Your task to perform on an android device: What's the weather going to be this weekend? Image 0: 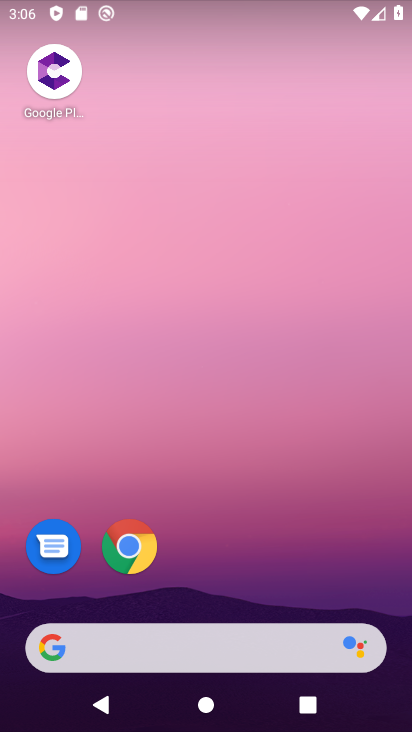
Step 0: click (230, 641)
Your task to perform on an android device: What's the weather going to be this weekend? Image 1: 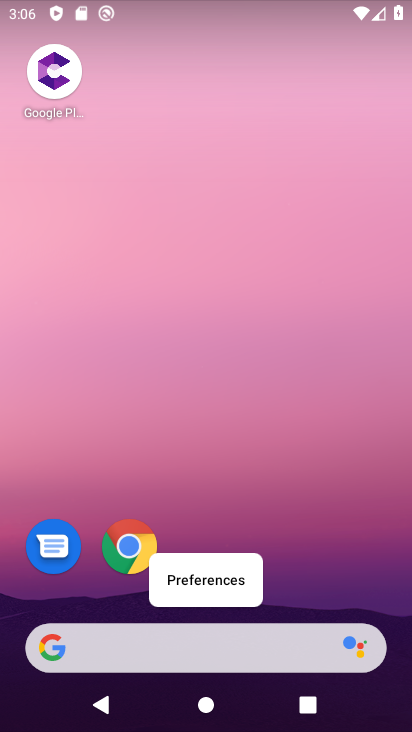
Step 1: click (170, 637)
Your task to perform on an android device: What's the weather going to be this weekend? Image 2: 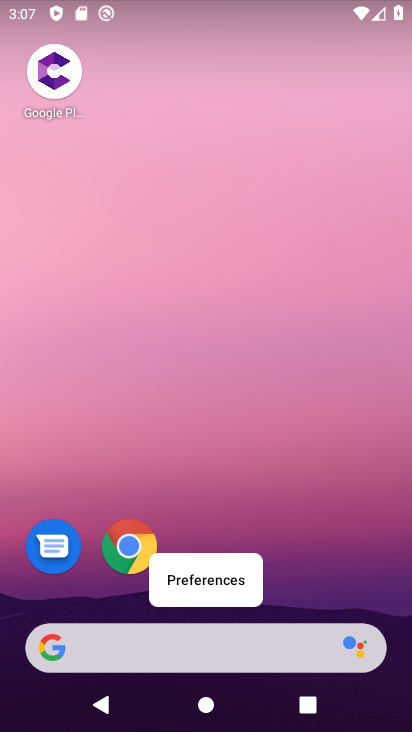
Step 2: click (166, 640)
Your task to perform on an android device: What's the weather going to be this weekend? Image 3: 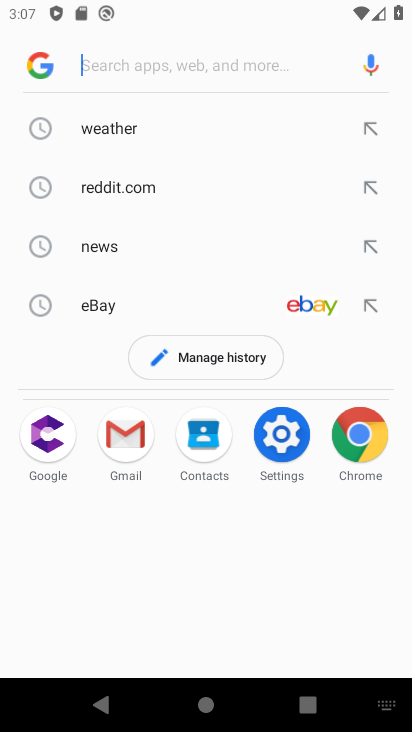
Step 3: click (139, 132)
Your task to perform on an android device: What's the weather going to be this weekend? Image 4: 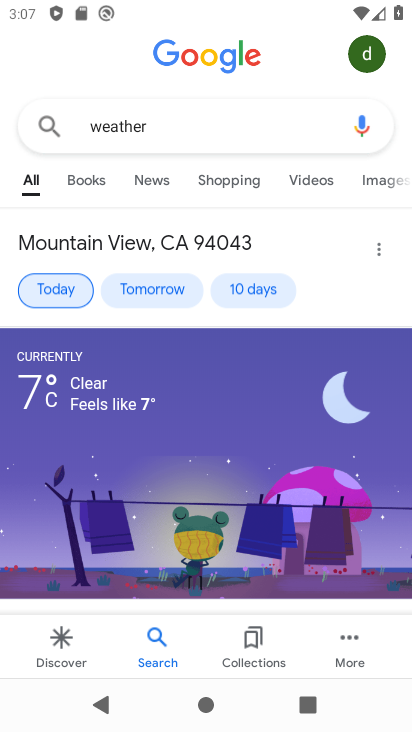
Step 4: click (256, 282)
Your task to perform on an android device: What's the weather going to be this weekend? Image 5: 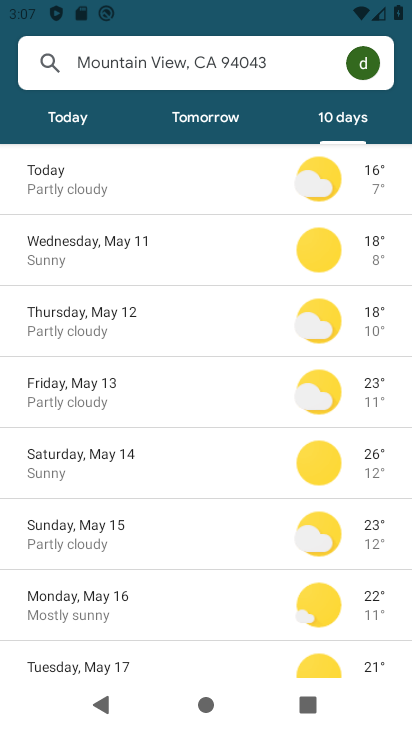
Step 5: task complete